Your task to perform on an android device: show emergency info Image 0: 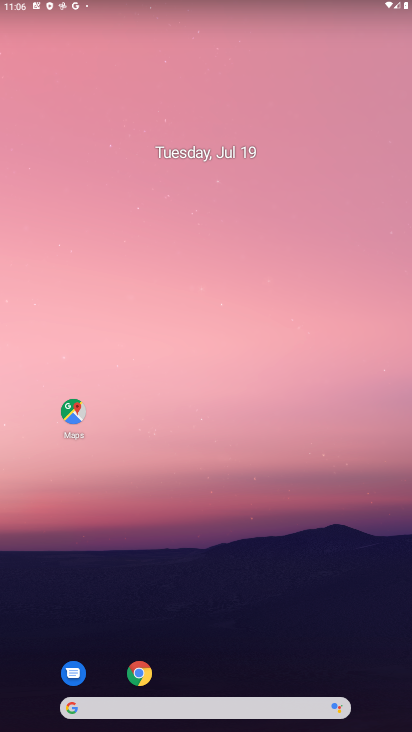
Step 0: drag from (277, 652) to (191, 22)
Your task to perform on an android device: show emergency info Image 1: 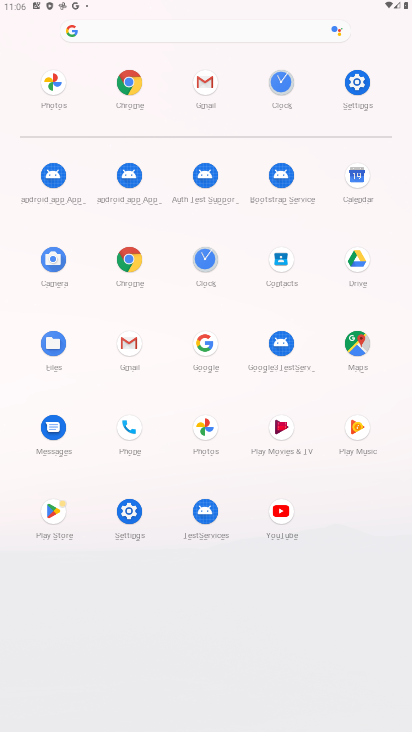
Step 1: click (358, 71)
Your task to perform on an android device: show emergency info Image 2: 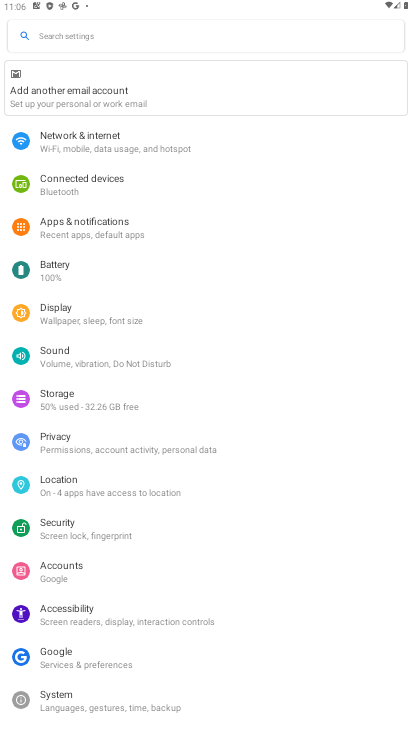
Step 2: click (152, 700)
Your task to perform on an android device: show emergency info Image 3: 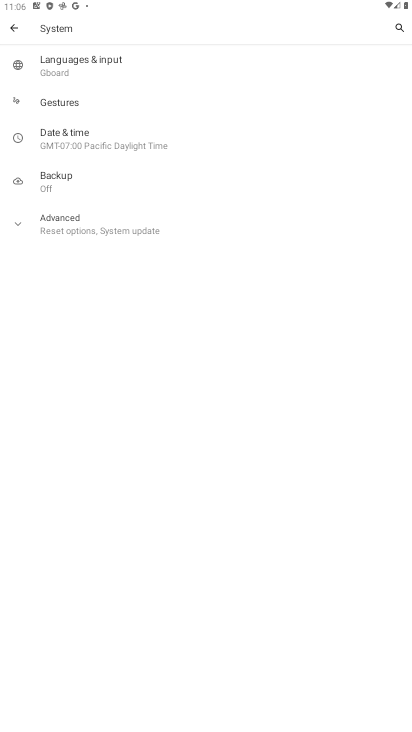
Step 3: task complete